Your task to perform on an android device: turn vacation reply on in the gmail app Image 0: 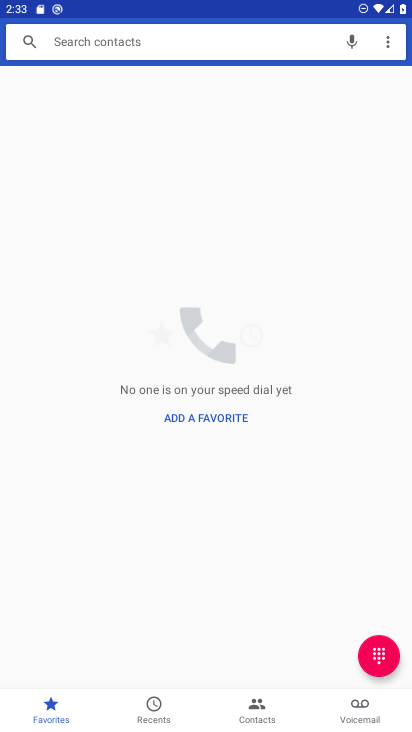
Step 0: press home button
Your task to perform on an android device: turn vacation reply on in the gmail app Image 1: 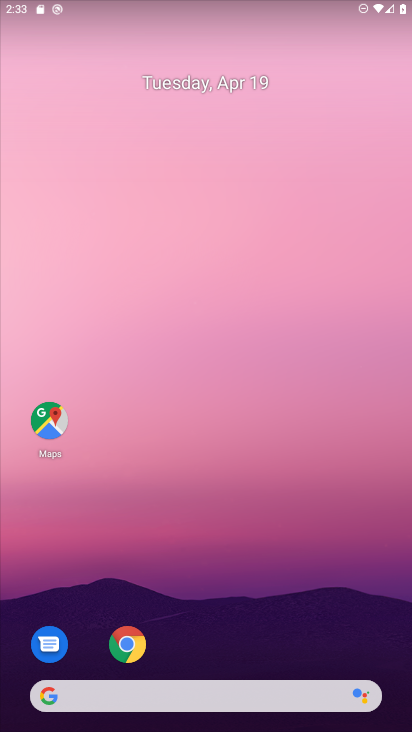
Step 1: drag from (201, 626) to (76, 84)
Your task to perform on an android device: turn vacation reply on in the gmail app Image 2: 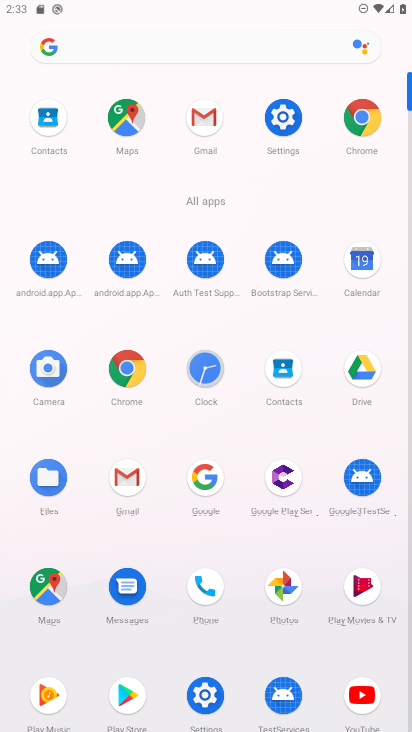
Step 2: click (205, 122)
Your task to perform on an android device: turn vacation reply on in the gmail app Image 3: 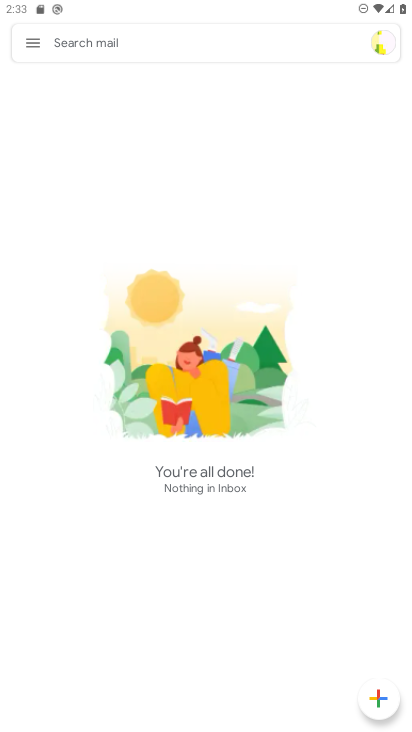
Step 3: click (38, 39)
Your task to perform on an android device: turn vacation reply on in the gmail app Image 4: 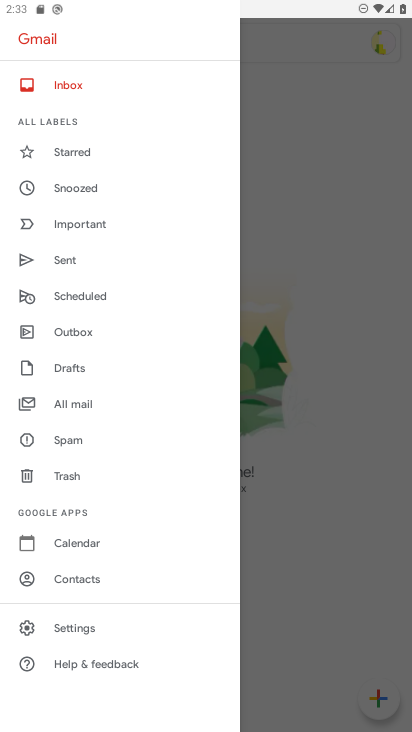
Step 4: click (82, 629)
Your task to perform on an android device: turn vacation reply on in the gmail app Image 5: 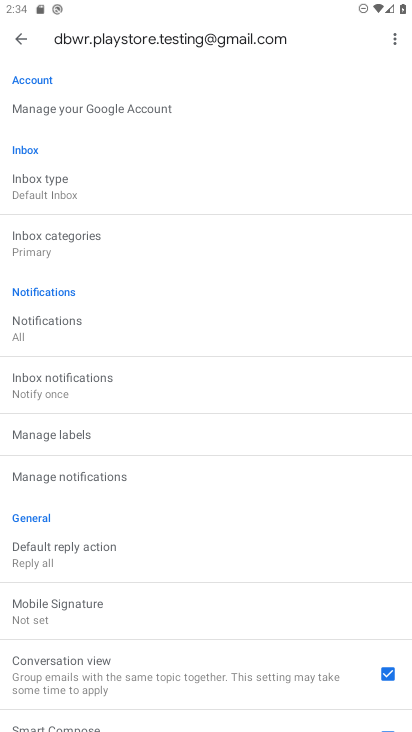
Step 5: drag from (105, 631) to (89, 155)
Your task to perform on an android device: turn vacation reply on in the gmail app Image 6: 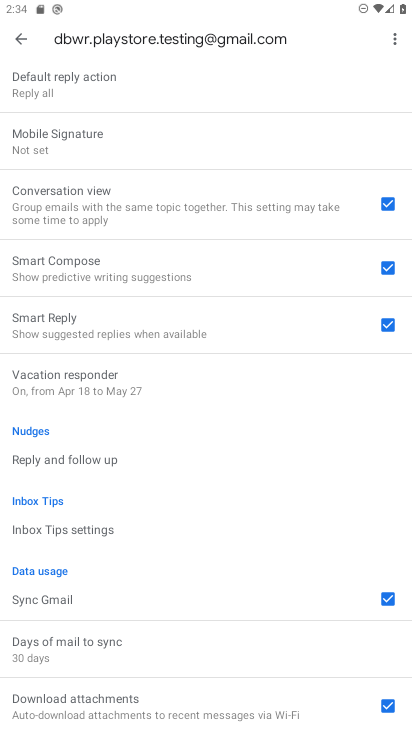
Step 6: click (102, 389)
Your task to perform on an android device: turn vacation reply on in the gmail app Image 7: 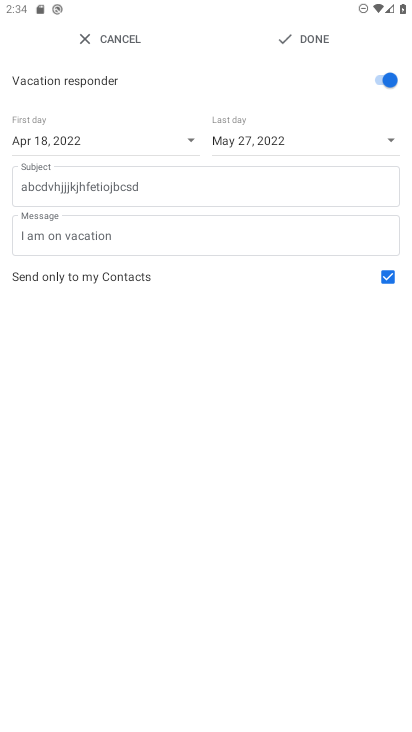
Step 7: click (307, 36)
Your task to perform on an android device: turn vacation reply on in the gmail app Image 8: 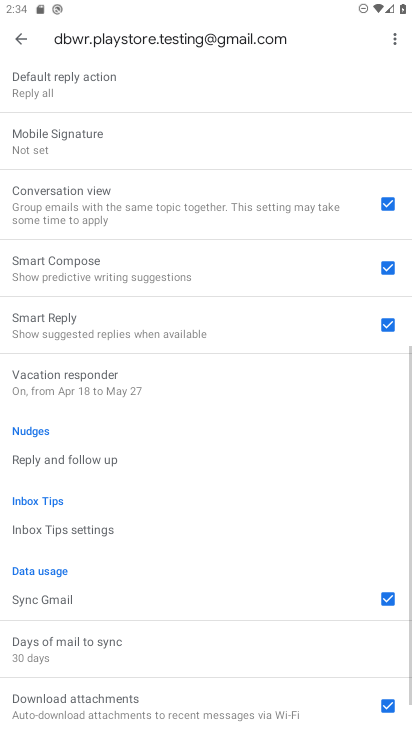
Step 8: task complete